Your task to perform on an android device: Open Yahoo.com Image 0: 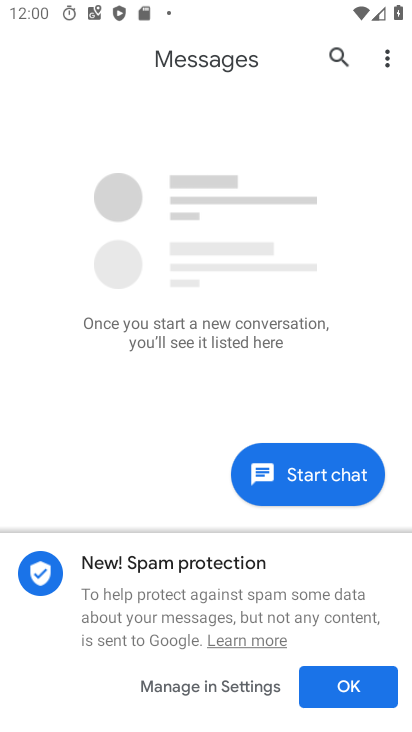
Step 0: press home button
Your task to perform on an android device: Open Yahoo.com Image 1: 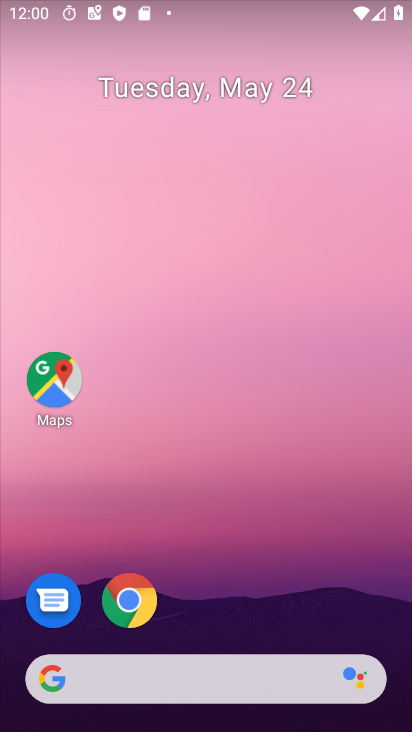
Step 1: drag from (237, 619) to (289, 257)
Your task to perform on an android device: Open Yahoo.com Image 2: 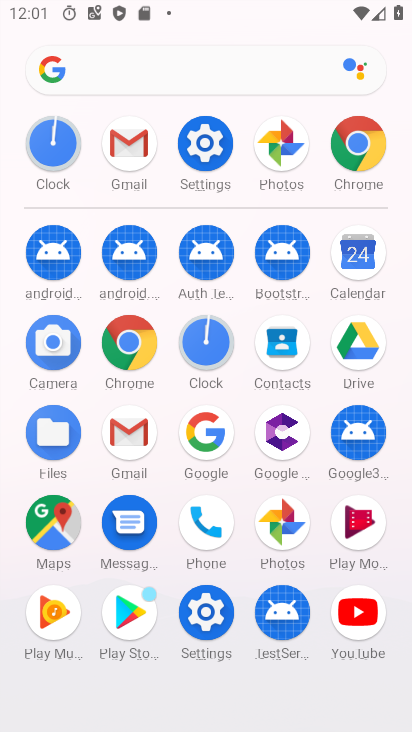
Step 2: click (352, 139)
Your task to perform on an android device: Open Yahoo.com Image 3: 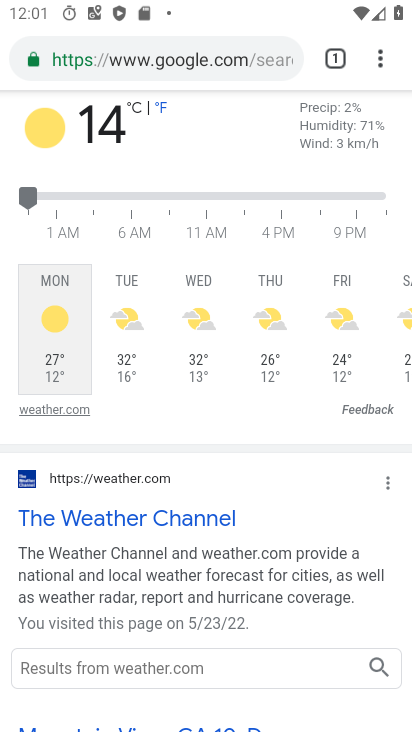
Step 3: click (204, 56)
Your task to perform on an android device: Open Yahoo.com Image 4: 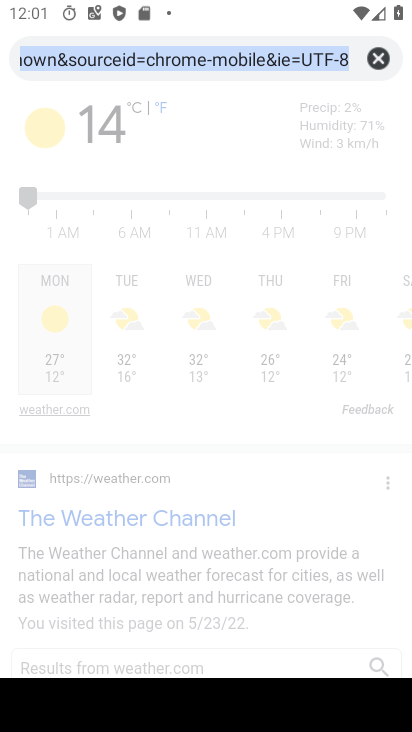
Step 4: click (379, 55)
Your task to perform on an android device: Open Yahoo.com Image 5: 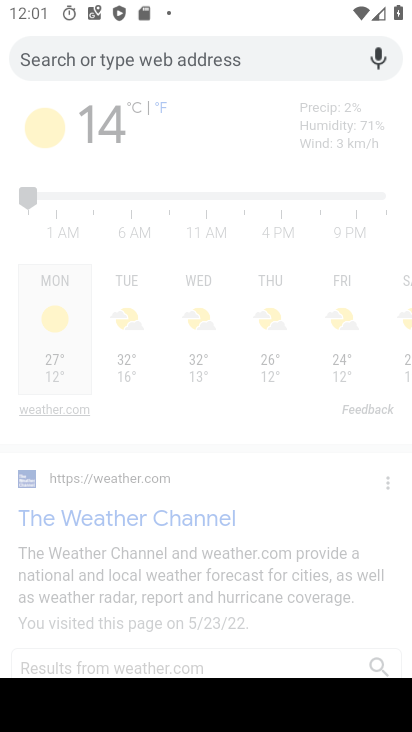
Step 5: type "yahoo.com"
Your task to perform on an android device: Open Yahoo.com Image 6: 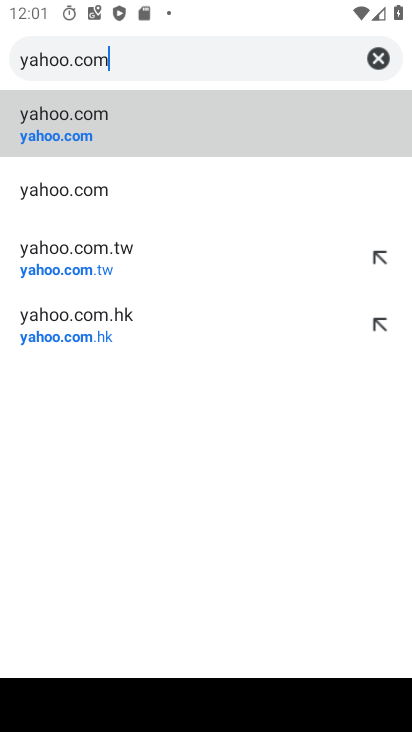
Step 6: click (63, 137)
Your task to perform on an android device: Open Yahoo.com Image 7: 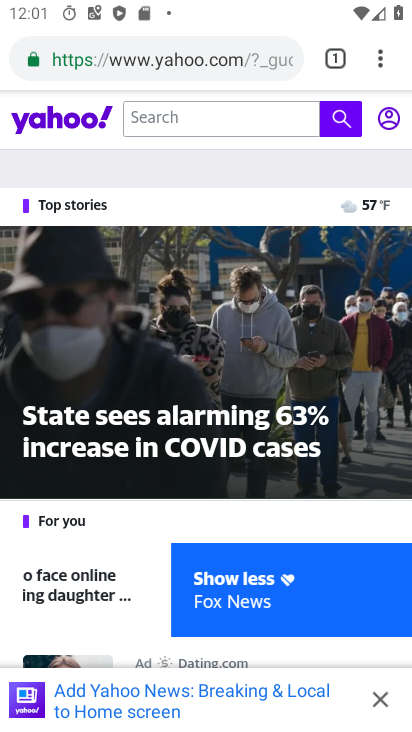
Step 7: task complete